Your task to perform on an android device: Open Yahoo.com Image 0: 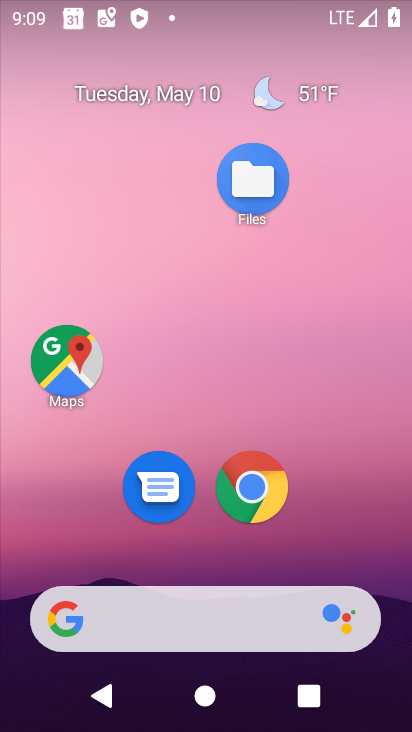
Step 0: click (239, 482)
Your task to perform on an android device: Open Yahoo.com Image 1: 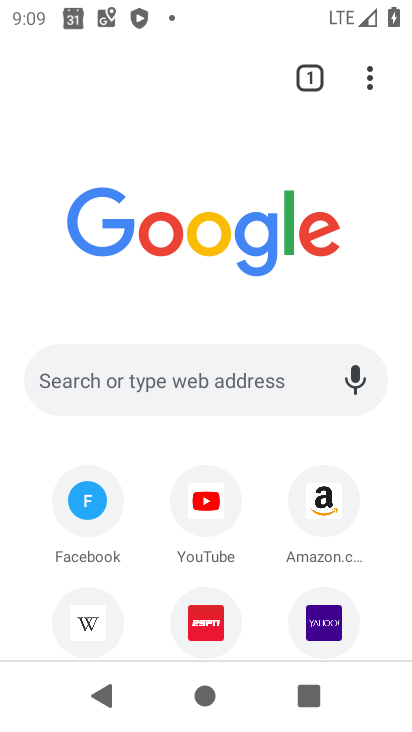
Step 1: click (325, 627)
Your task to perform on an android device: Open Yahoo.com Image 2: 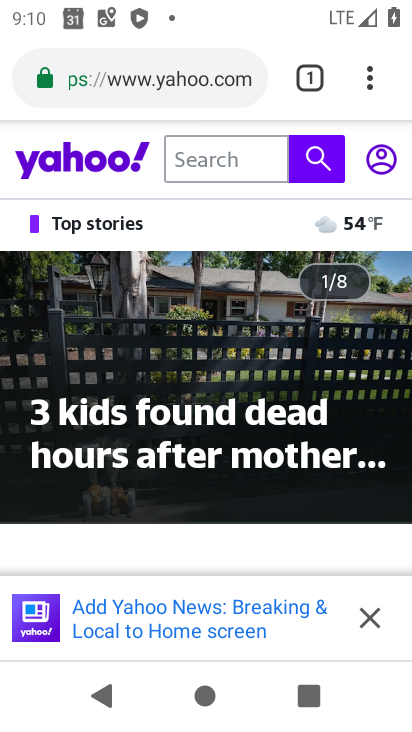
Step 2: task complete